Your task to perform on an android device: Open Youtube and go to the subscriptions tab Image 0: 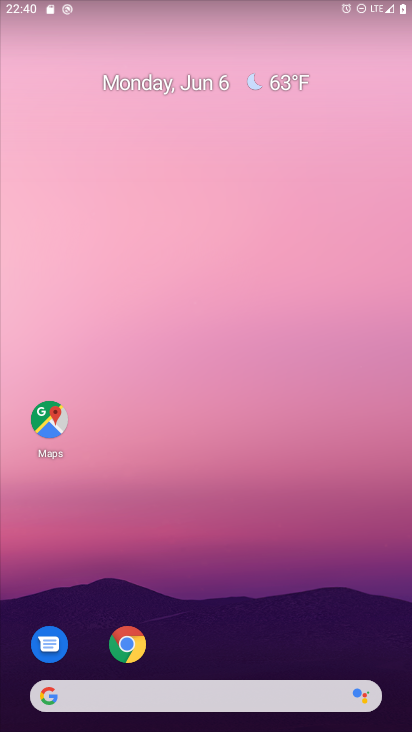
Step 0: drag from (248, 703) to (215, 198)
Your task to perform on an android device: Open Youtube and go to the subscriptions tab Image 1: 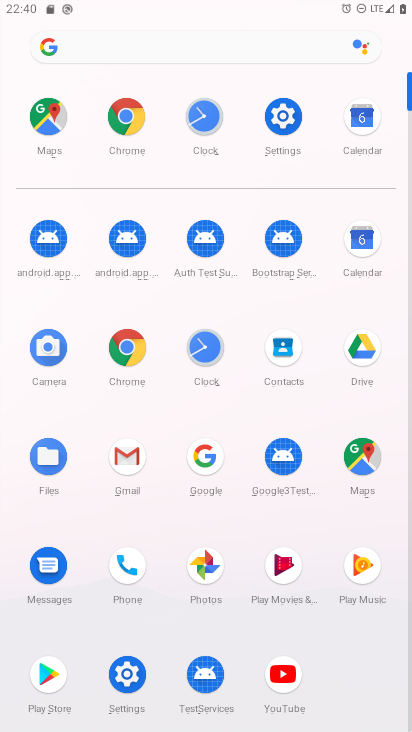
Step 1: click (293, 668)
Your task to perform on an android device: Open Youtube and go to the subscriptions tab Image 2: 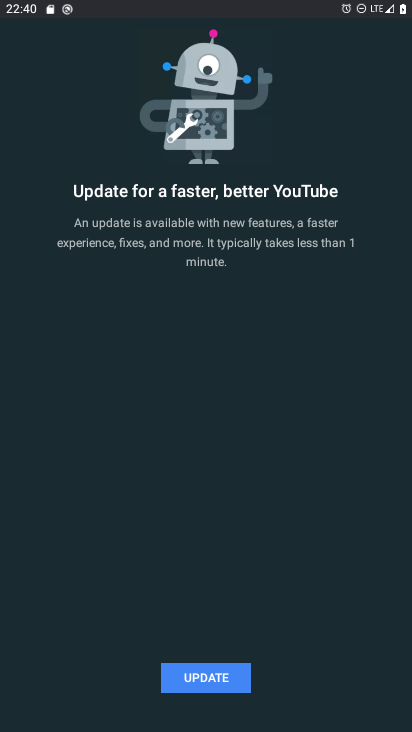
Step 2: click (158, 672)
Your task to perform on an android device: Open Youtube and go to the subscriptions tab Image 3: 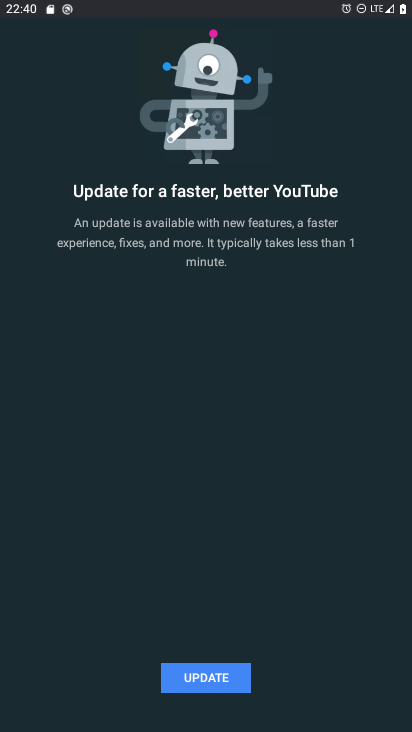
Step 3: click (214, 674)
Your task to perform on an android device: Open Youtube and go to the subscriptions tab Image 4: 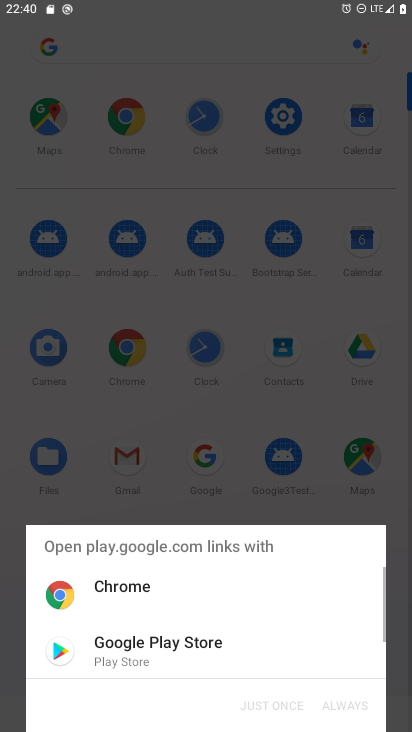
Step 4: click (175, 642)
Your task to perform on an android device: Open Youtube and go to the subscriptions tab Image 5: 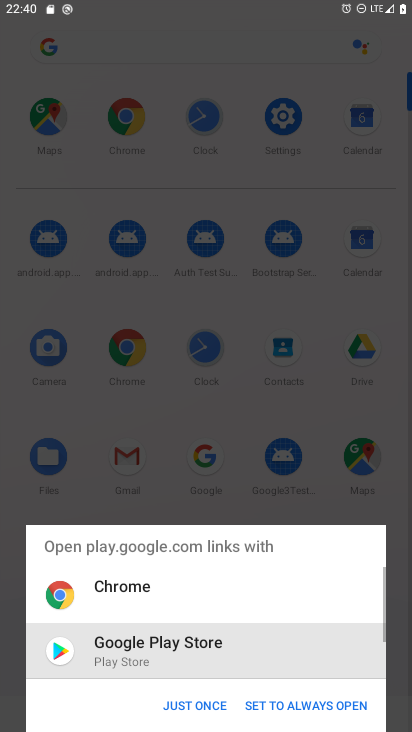
Step 5: click (191, 707)
Your task to perform on an android device: Open Youtube and go to the subscriptions tab Image 6: 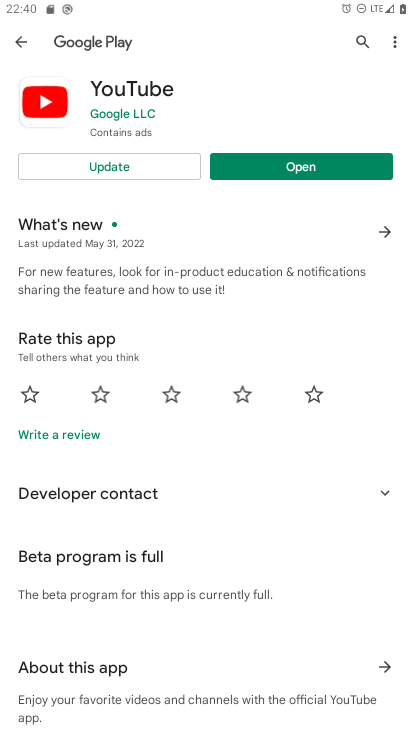
Step 6: click (83, 168)
Your task to perform on an android device: Open Youtube and go to the subscriptions tab Image 7: 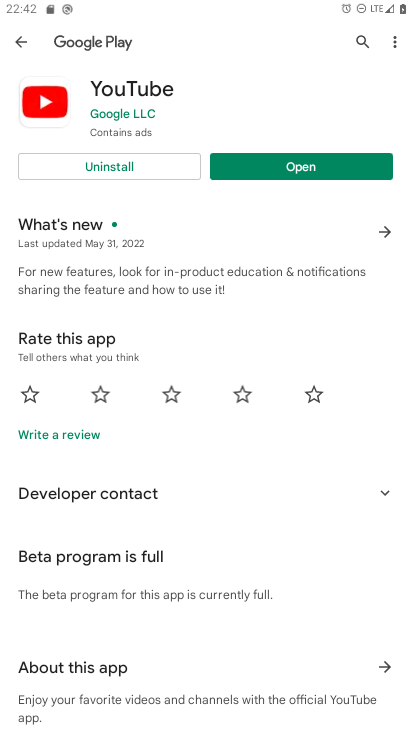
Step 7: click (299, 163)
Your task to perform on an android device: Open Youtube and go to the subscriptions tab Image 8: 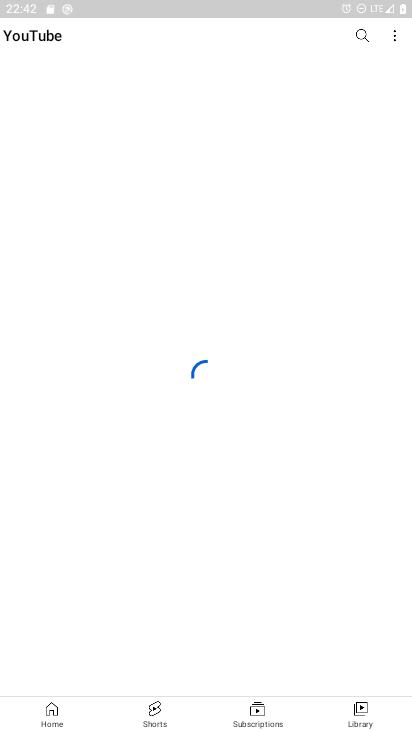
Step 8: click (257, 719)
Your task to perform on an android device: Open Youtube and go to the subscriptions tab Image 9: 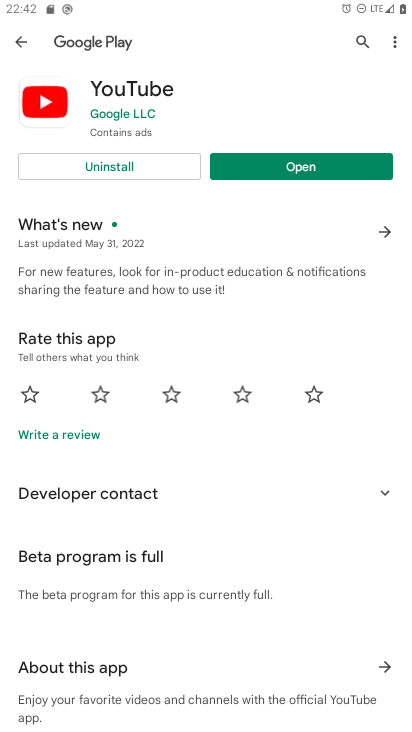
Step 9: click (275, 175)
Your task to perform on an android device: Open Youtube and go to the subscriptions tab Image 10: 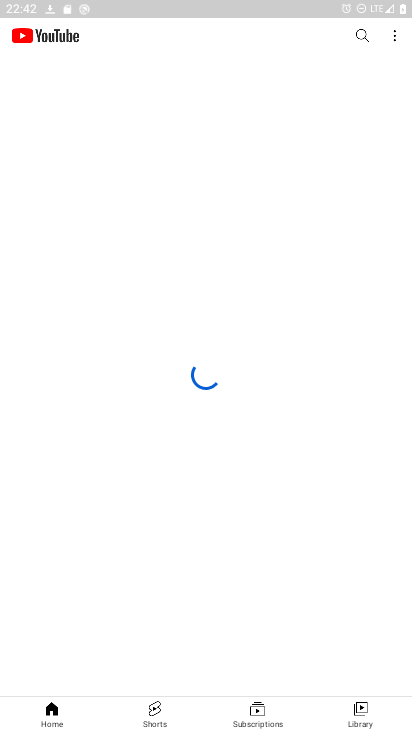
Step 10: click (253, 706)
Your task to perform on an android device: Open Youtube and go to the subscriptions tab Image 11: 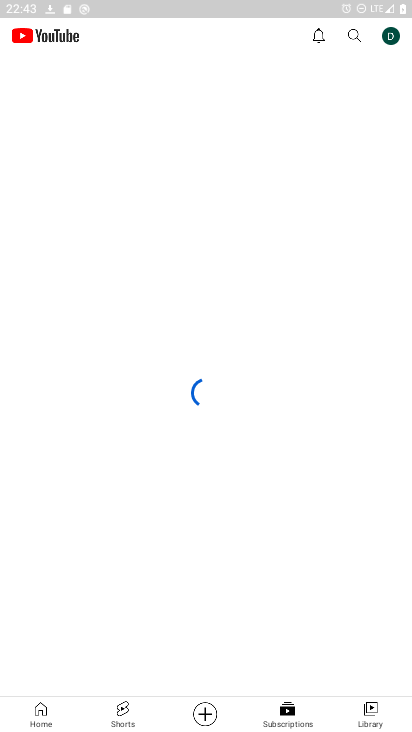
Step 11: click (263, 719)
Your task to perform on an android device: Open Youtube and go to the subscriptions tab Image 12: 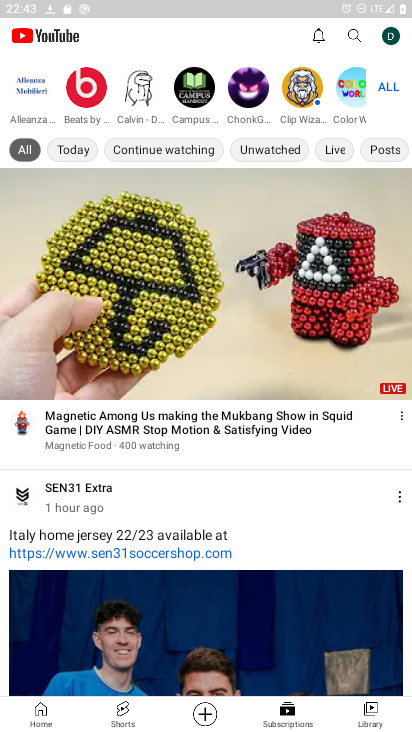
Step 12: click (269, 708)
Your task to perform on an android device: Open Youtube and go to the subscriptions tab Image 13: 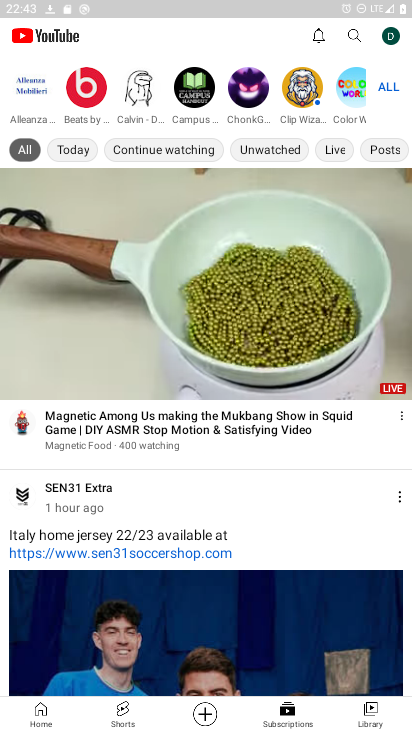
Step 13: task complete